Your task to perform on an android device: Do I have any events today? Image 0: 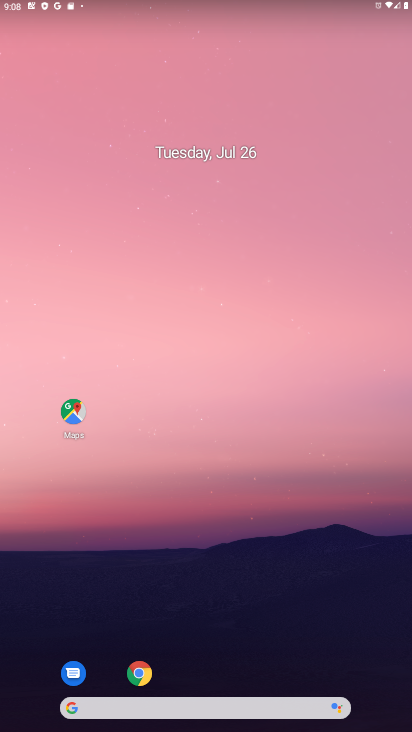
Step 0: type "weather"
Your task to perform on an android device: Do I have any events today? Image 1: 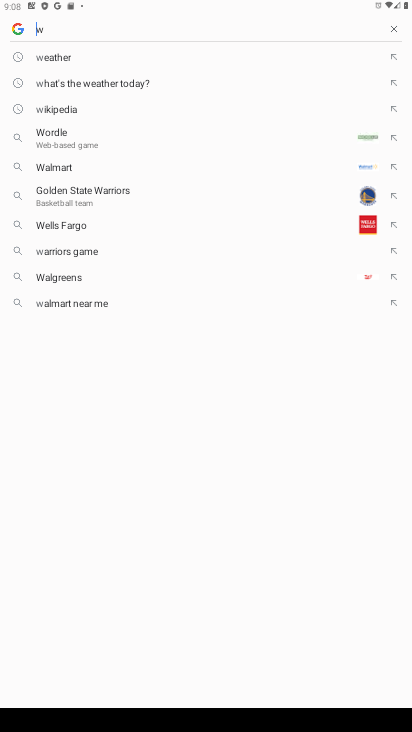
Step 1: click (52, 60)
Your task to perform on an android device: Do I have any events today? Image 2: 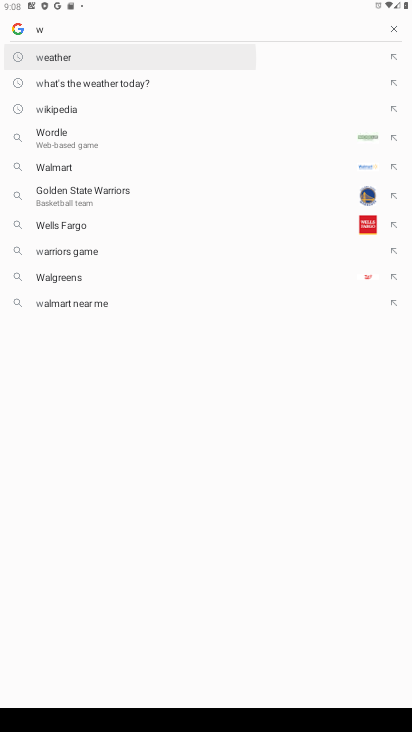
Step 2: click (51, 61)
Your task to perform on an android device: Do I have any events today? Image 3: 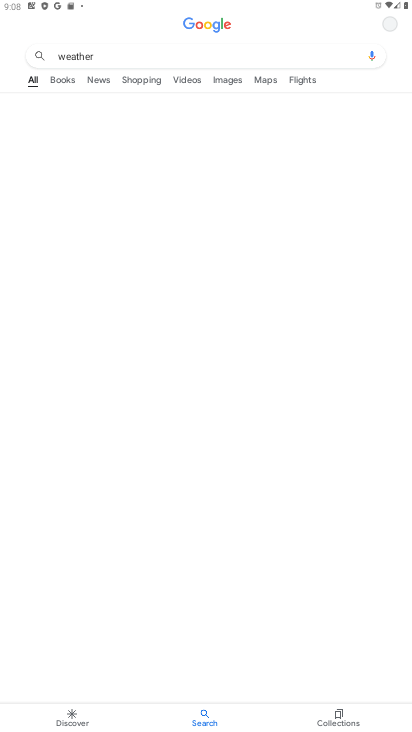
Step 3: press back button
Your task to perform on an android device: Do I have any events today? Image 4: 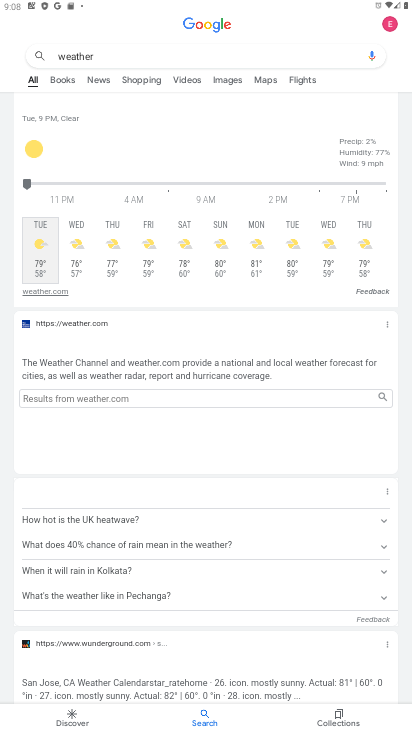
Step 4: press back button
Your task to perform on an android device: Do I have any events today? Image 5: 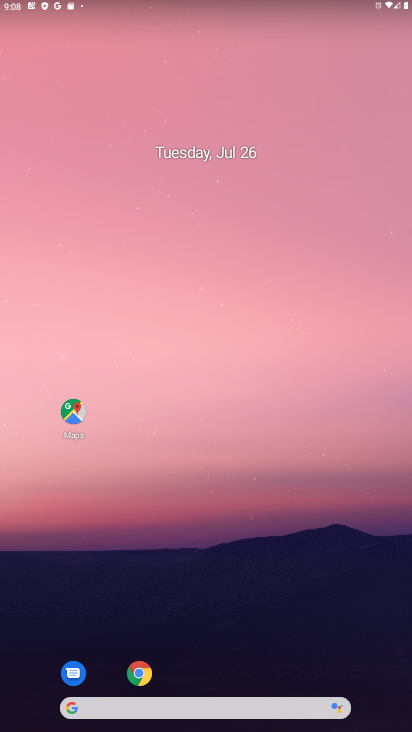
Step 5: click (186, 187)
Your task to perform on an android device: Do I have any events today? Image 6: 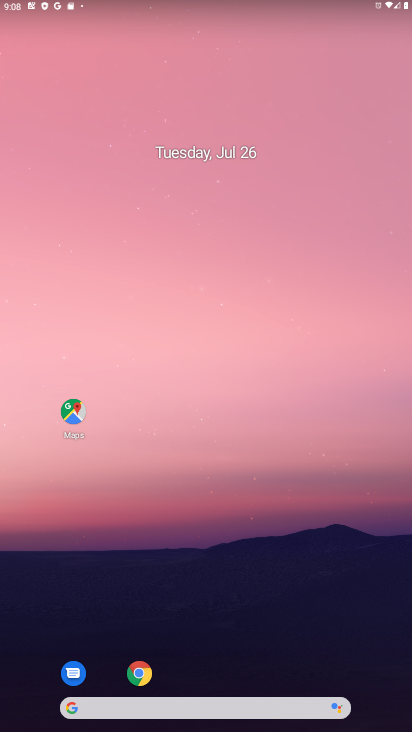
Step 6: click (228, 354)
Your task to perform on an android device: Do I have any events today? Image 7: 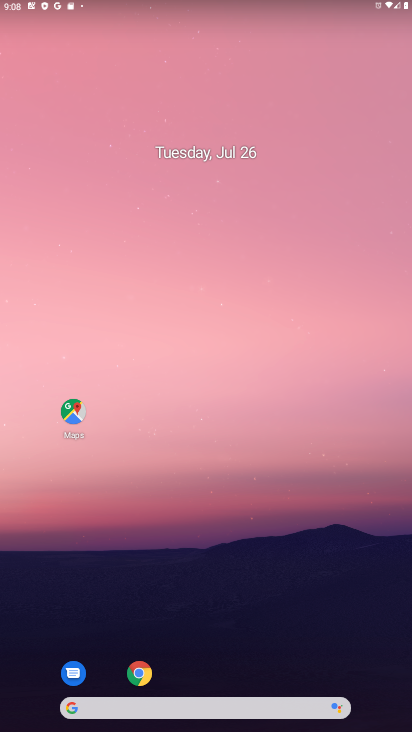
Step 7: drag from (270, 622) to (185, 153)
Your task to perform on an android device: Do I have any events today? Image 8: 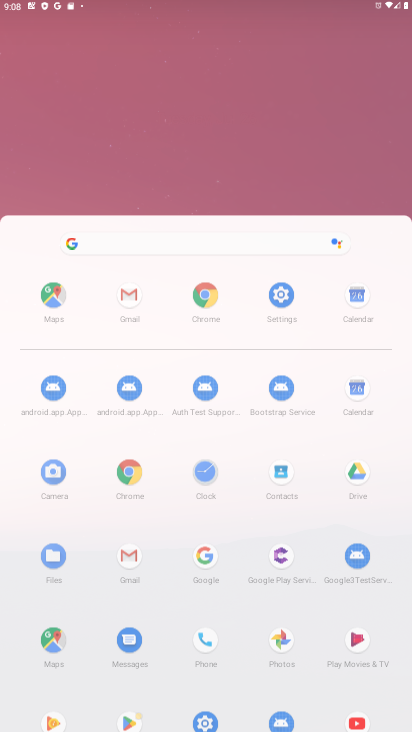
Step 8: drag from (199, 363) to (199, 55)
Your task to perform on an android device: Do I have any events today? Image 9: 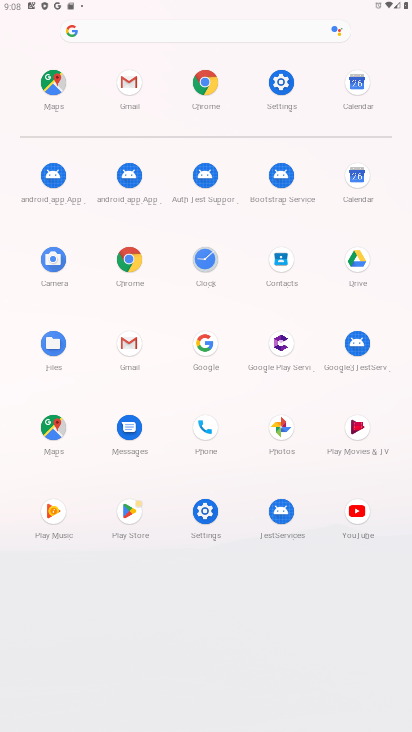
Step 9: drag from (184, 484) to (184, 84)
Your task to perform on an android device: Do I have any events today? Image 10: 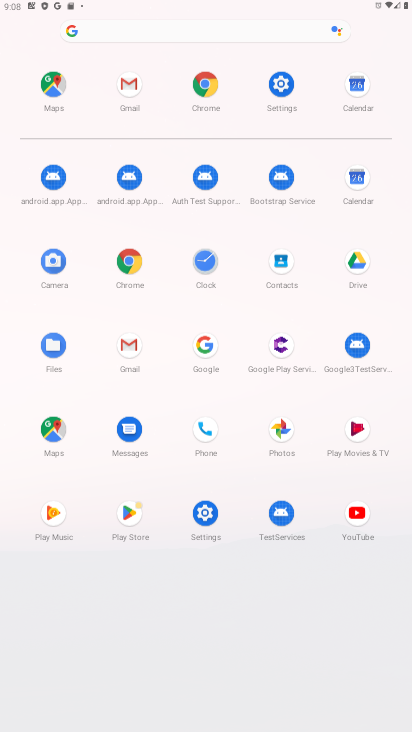
Step 10: click (207, 148)
Your task to perform on an android device: Do I have any events today? Image 11: 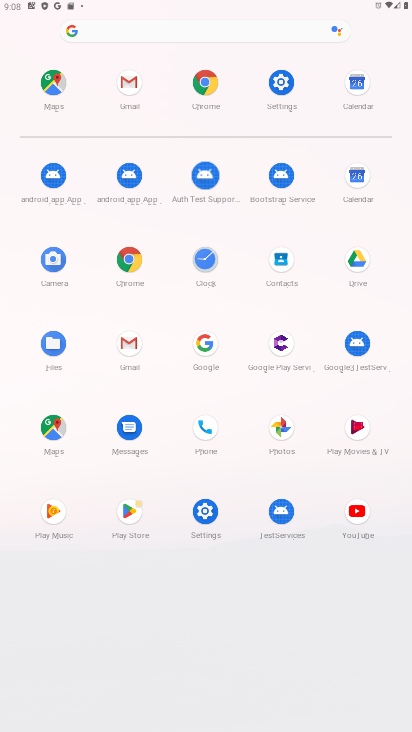
Step 11: click (358, 187)
Your task to perform on an android device: Do I have any events today? Image 12: 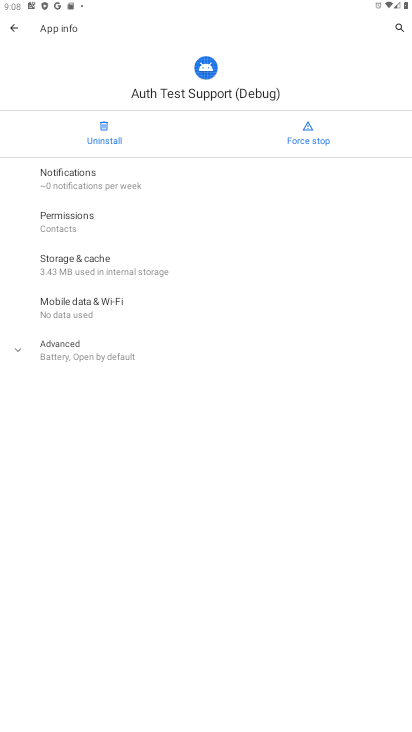
Step 12: click (12, 28)
Your task to perform on an android device: Do I have any events today? Image 13: 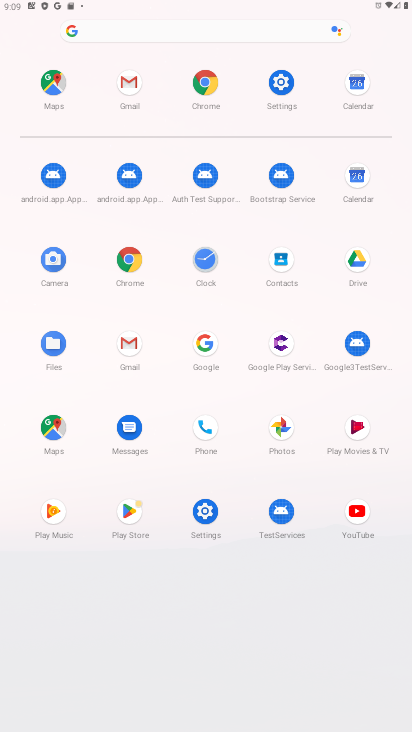
Step 13: click (351, 176)
Your task to perform on an android device: Do I have any events today? Image 14: 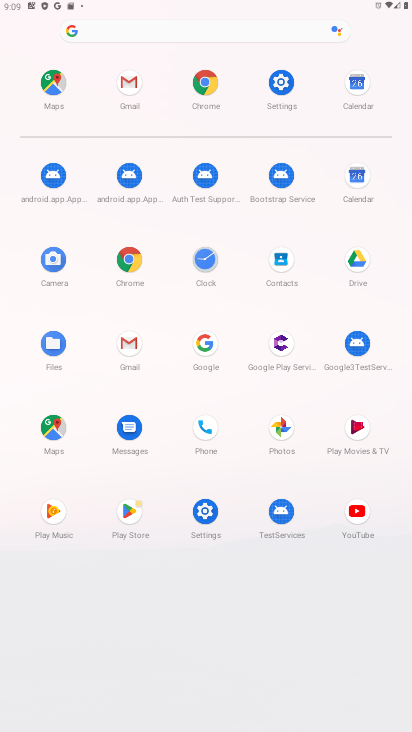
Step 14: click (353, 180)
Your task to perform on an android device: Do I have any events today? Image 15: 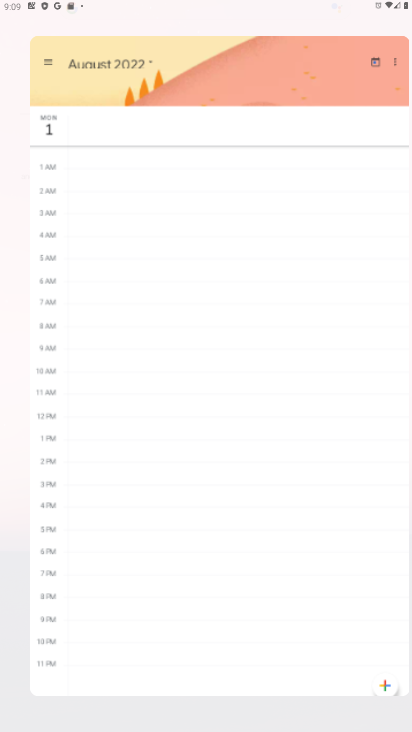
Step 15: click (354, 181)
Your task to perform on an android device: Do I have any events today? Image 16: 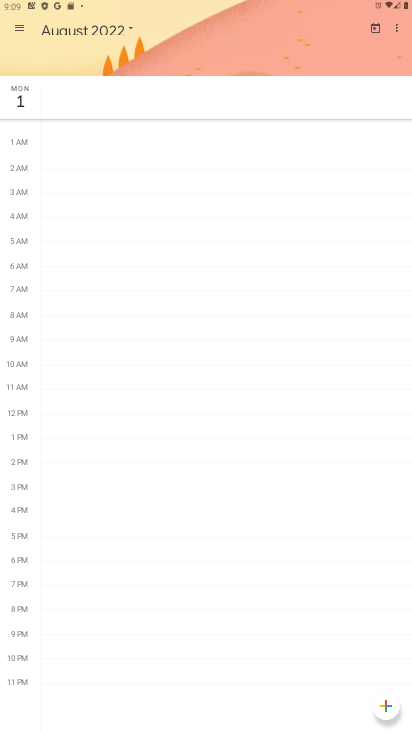
Step 16: click (128, 25)
Your task to perform on an android device: Do I have any events today? Image 17: 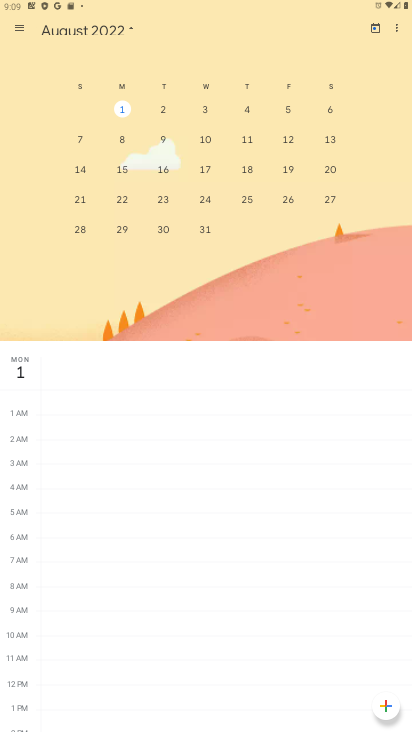
Step 17: click (410, 156)
Your task to perform on an android device: Do I have any events today? Image 18: 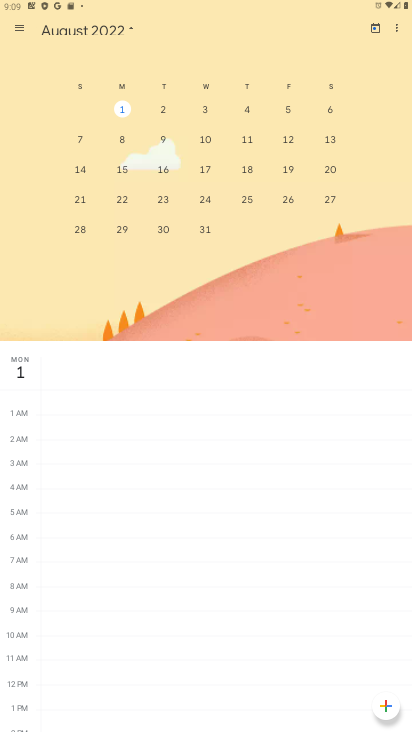
Step 18: drag from (77, 208) to (341, 222)
Your task to perform on an android device: Do I have any events today? Image 19: 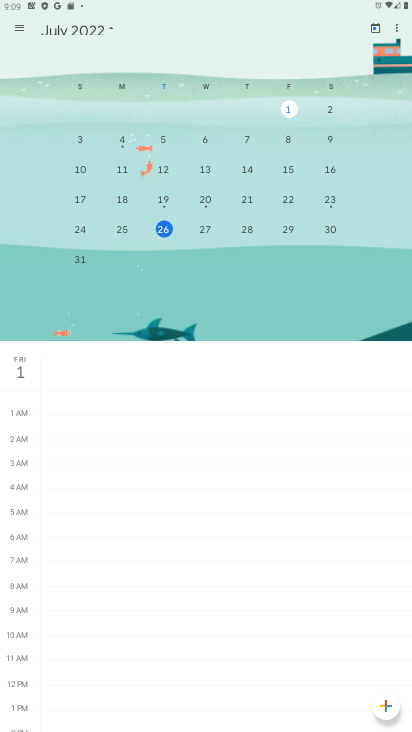
Step 19: drag from (275, 186) to (369, 186)
Your task to perform on an android device: Do I have any events today? Image 20: 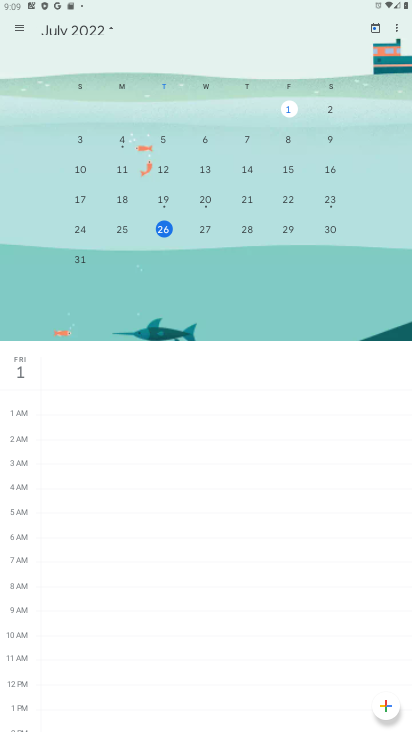
Step 20: click (165, 233)
Your task to perform on an android device: Do I have any events today? Image 21: 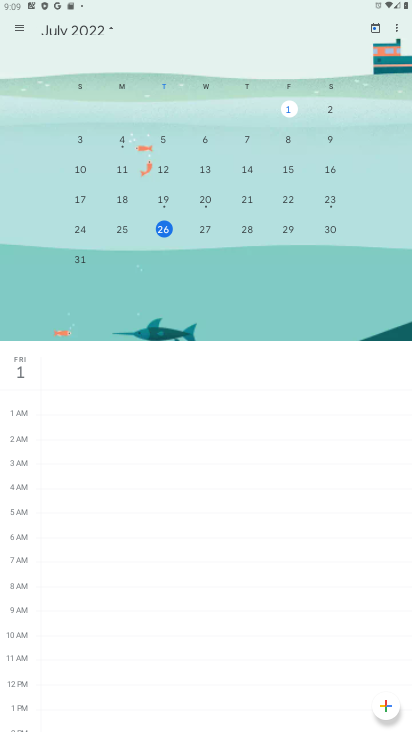
Step 21: click (165, 233)
Your task to perform on an android device: Do I have any events today? Image 22: 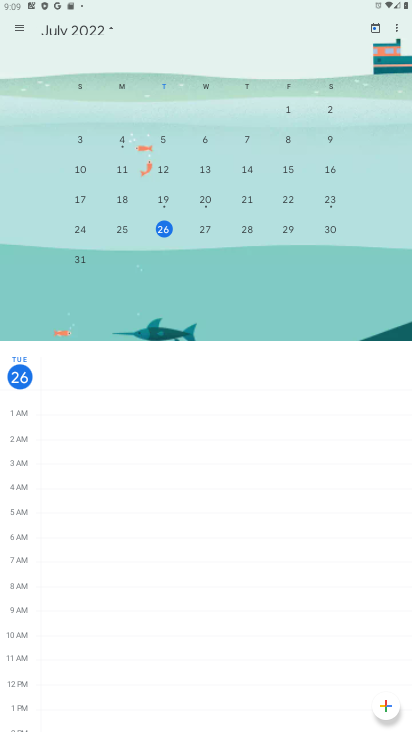
Step 22: click (206, 224)
Your task to perform on an android device: Do I have any events today? Image 23: 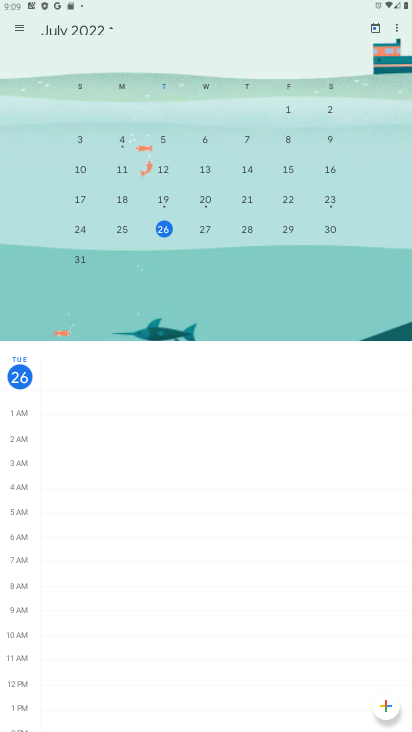
Step 23: click (206, 224)
Your task to perform on an android device: Do I have any events today? Image 24: 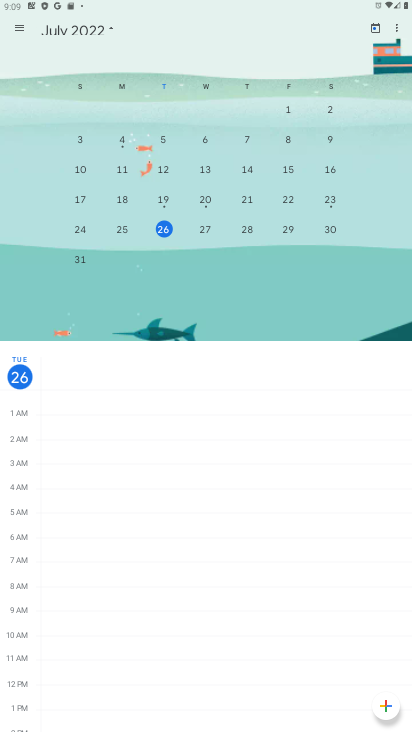
Step 24: click (208, 226)
Your task to perform on an android device: Do I have any events today? Image 25: 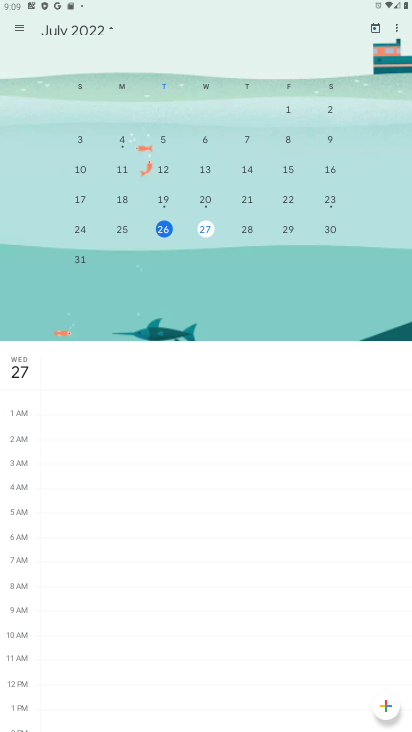
Step 25: click (209, 227)
Your task to perform on an android device: Do I have any events today? Image 26: 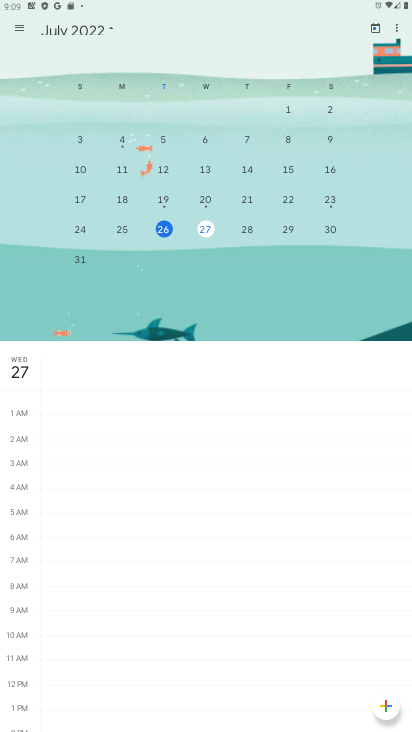
Step 26: click (209, 227)
Your task to perform on an android device: Do I have any events today? Image 27: 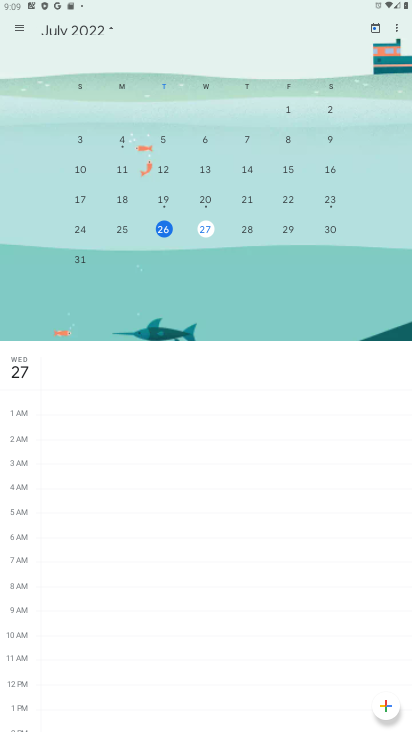
Step 27: task complete